Your task to perform on an android device: turn off location history Image 0: 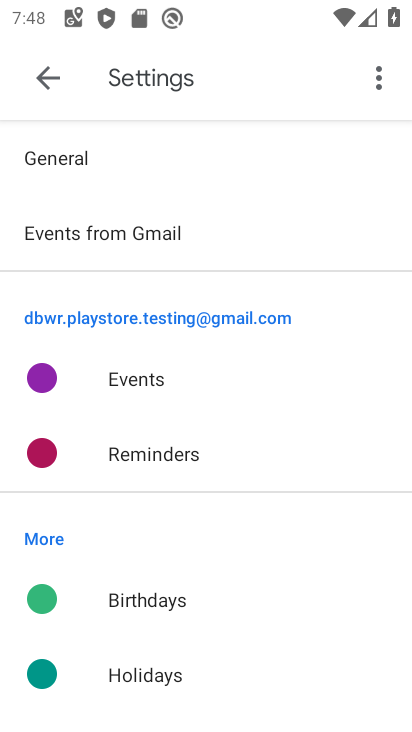
Step 0: press home button
Your task to perform on an android device: turn off location history Image 1: 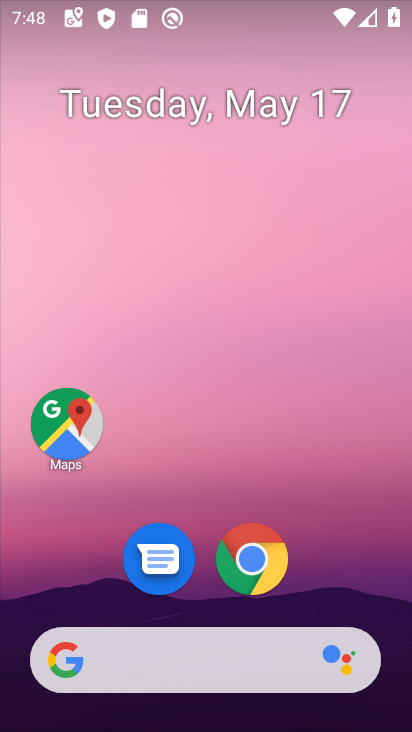
Step 1: drag from (216, 726) to (216, 66)
Your task to perform on an android device: turn off location history Image 2: 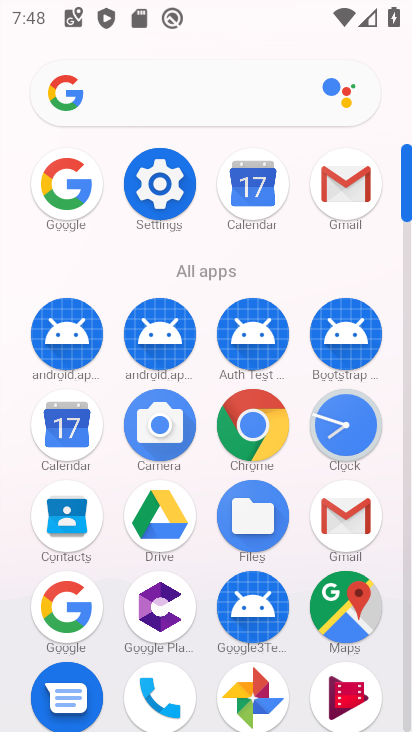
Step 2: click (178, 191)
Your task to perform on an android device: turn off location history Image 3: 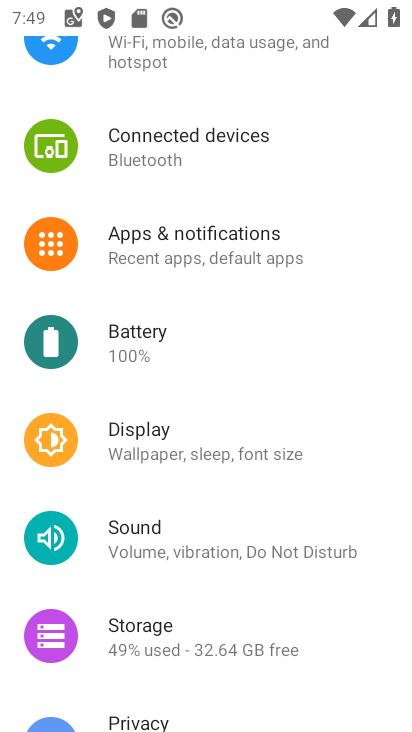
Step 3: drag from (284, 634) to (269, 75)
Your task to perform on an android device: turn off location history Image 4: 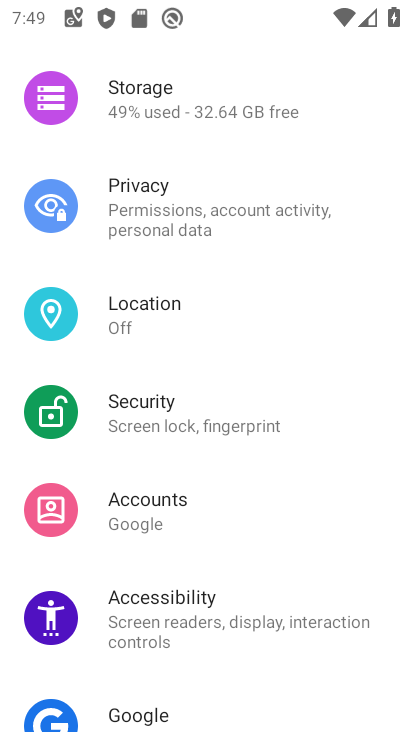
Step 4: click (191, 335)
Your task to perform on an android device: turn off location history Image 5: 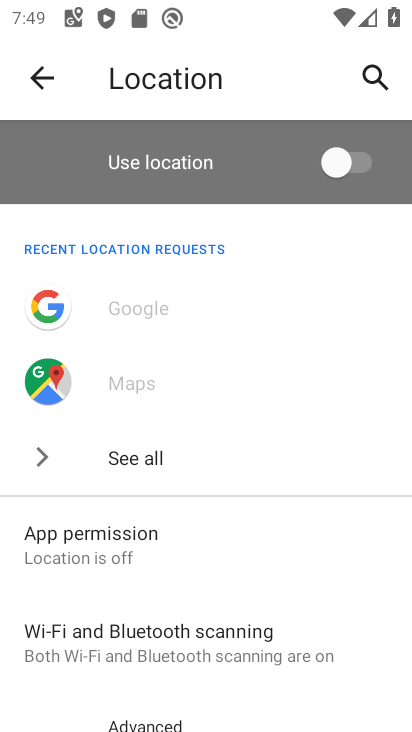
Step 5: drag from (287, 573) to (250, 119)
Your task to perform on an android device: turn off location history Image 6: 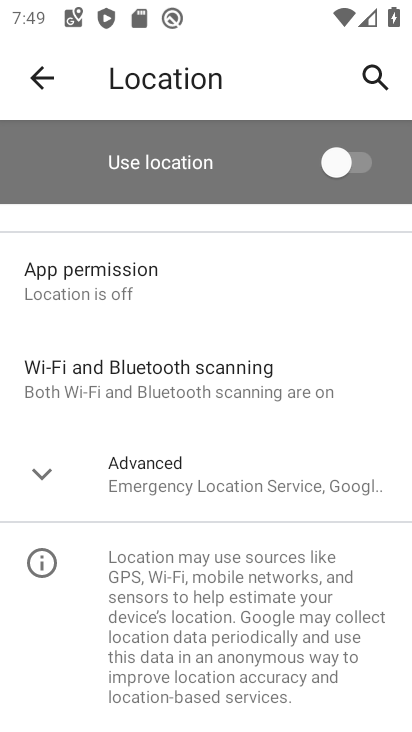
Step 6: click (304, 483)
Your task to perform on an android device: turn off location history Image 7: 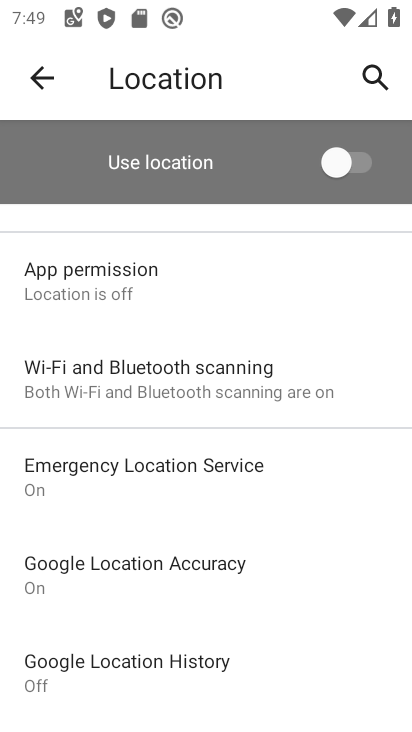
Step 7: click (182, 657)
Your task to perform on an android device: turn off location history Image 8: 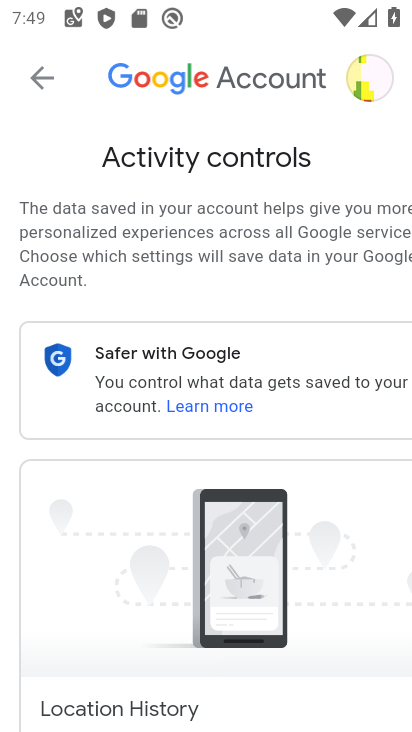
Step 8: task complete